Your task to perform on an android device: Do I have any events today? Image 0: 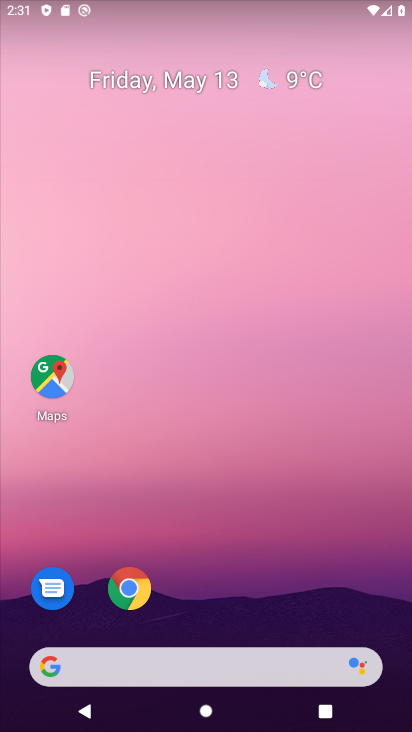
Step 0: drag from (257, 652) to (234, 84)
Your task to perform on an android device: Do I have any events today? Image 1: 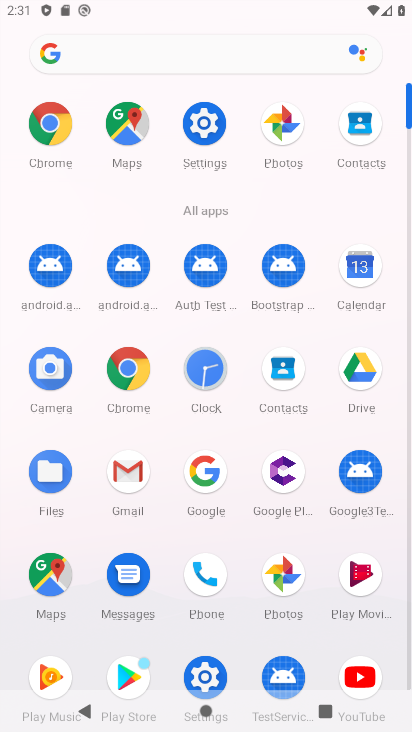
Step 1: click (349, 267)
Your task to perform on an android device: Do I have any events today? Image 2: 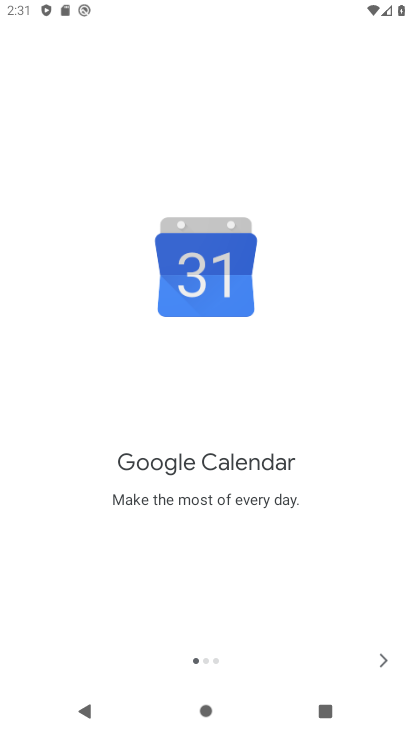
Step 2: click (376, 656)
Your task to perform on an android device: Do I have any events today? Image 3: 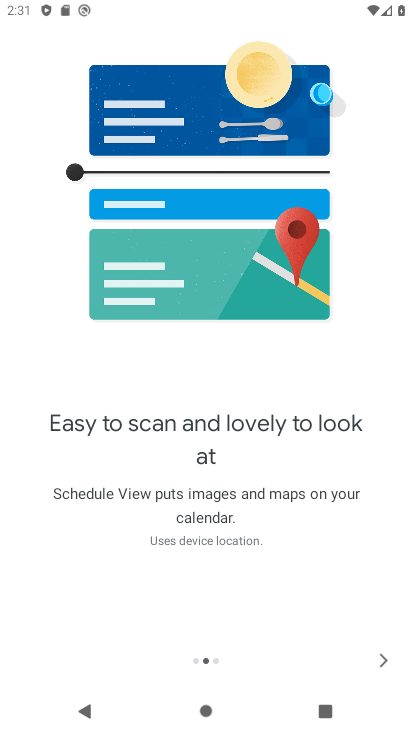
Step 3: click (376, 656)
Your task to perform on an android device: Do I have any events today? Image 4: 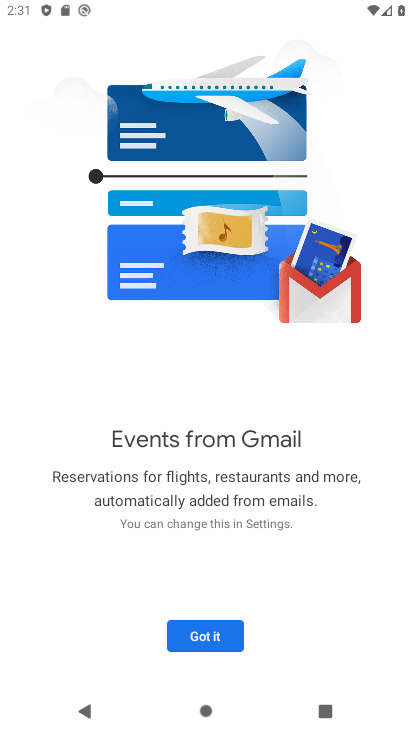
Step 4: click (203, 625)
Your task to perform on an android device: Do I have any events today? Image 5: 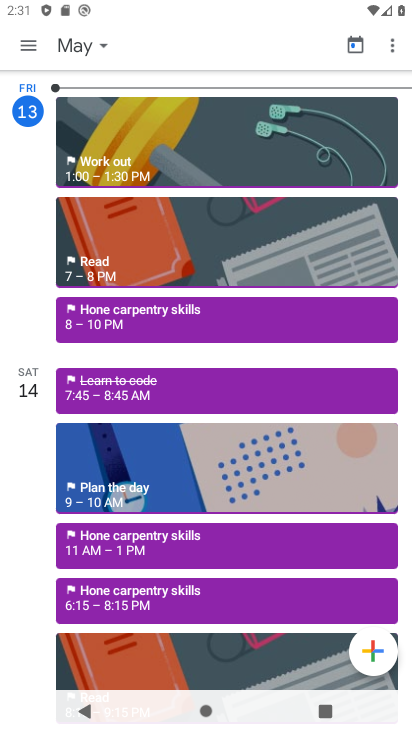
Step 5: task complete